Your task to perform on an android device: uninstall "Messenger Lite" Image 0: 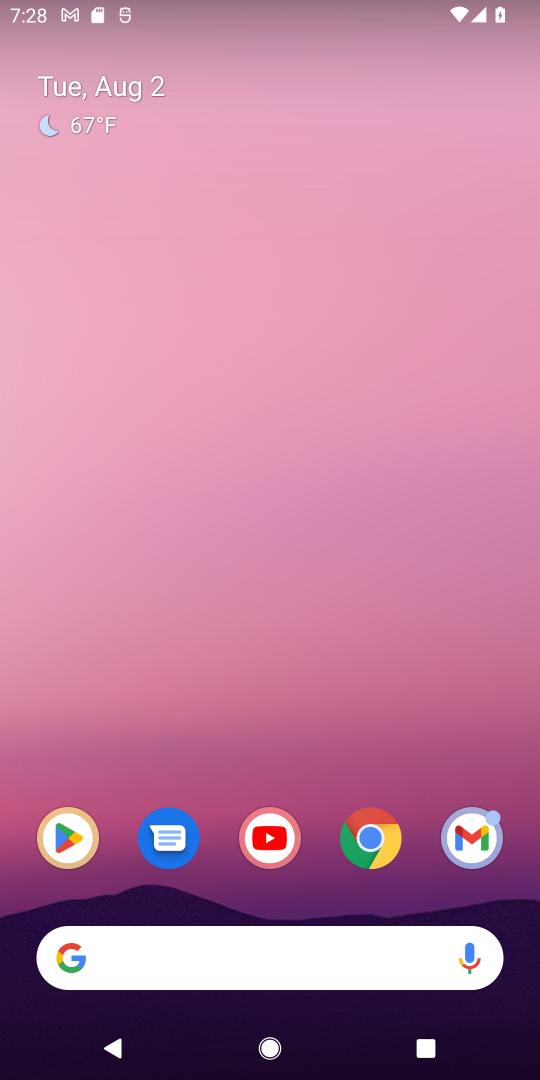
Step 0: click (49, 845)
Your task to perform on an android device: uninstall "Messenger Lite" Image 1: 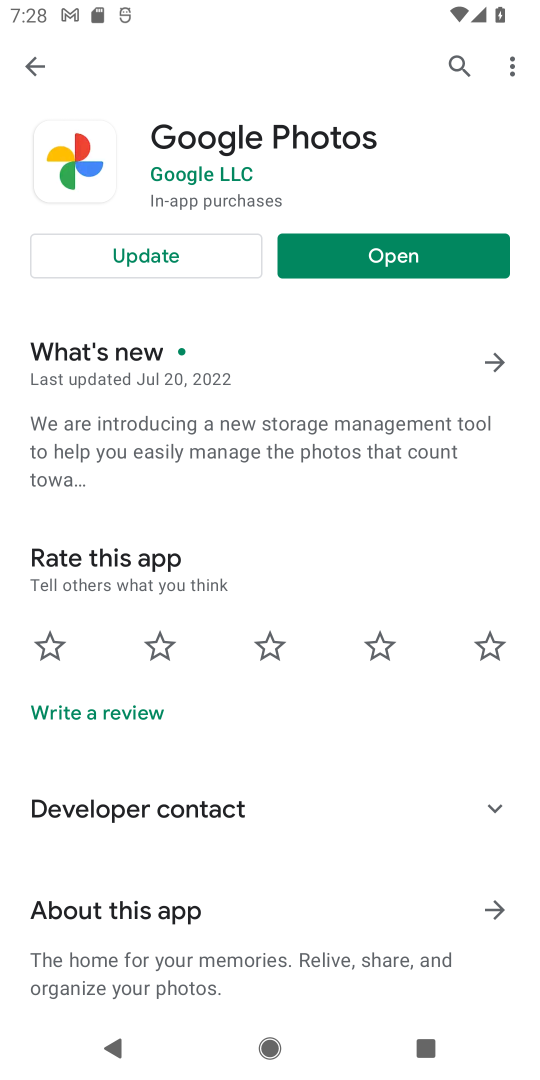
Step 1: click (448, 52)
Your task to perform on an android device: uninstall "Messenger Lite" Image 2: 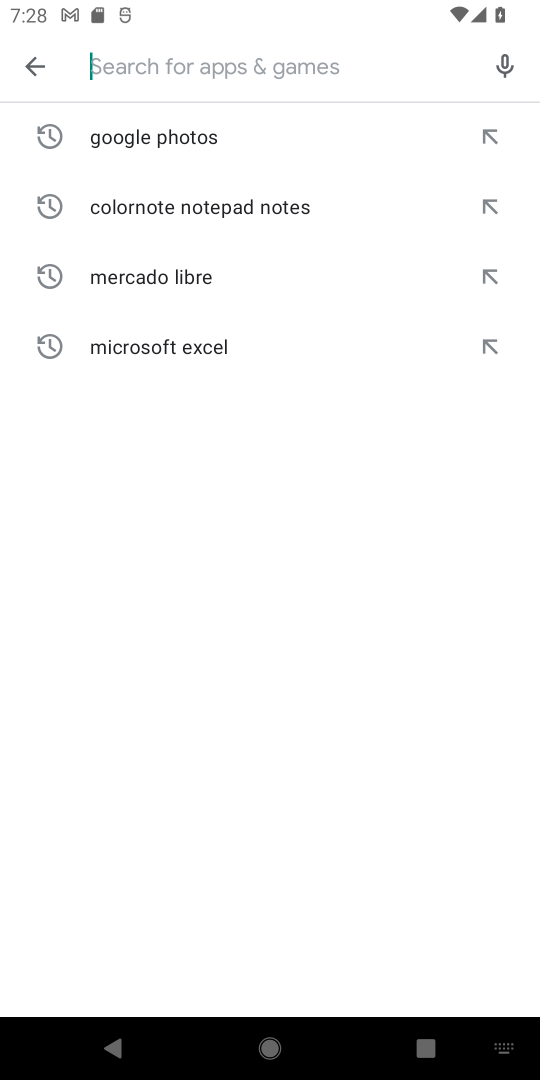
Step 2: type "messenger lite"
Your task to perform on an android device: uninstall "Messenger Lite" Image 3: 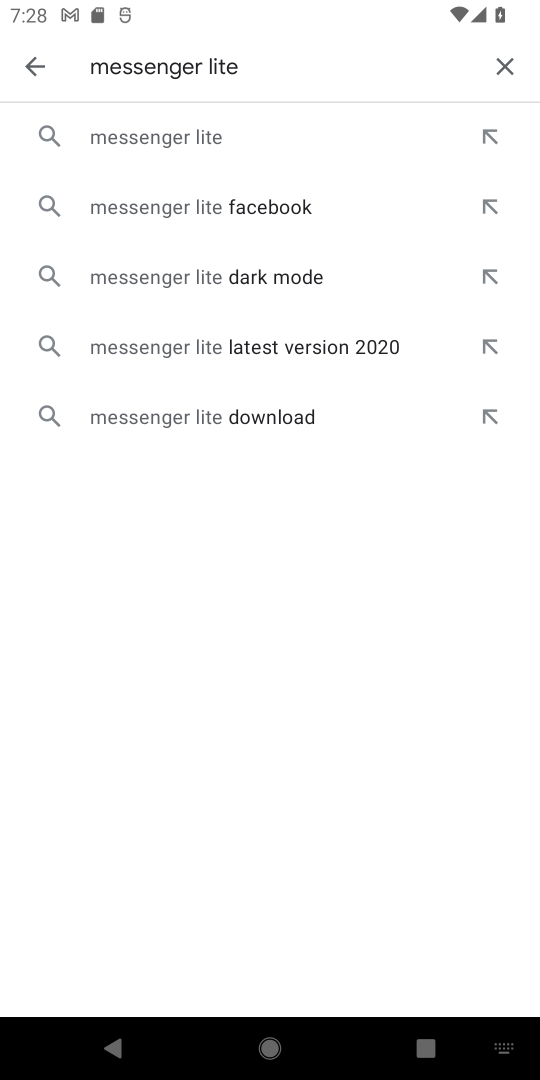
Step 3: click (125, 123)
Your task to perform on an android device: uninstall "Messenger Lite" Image 4: 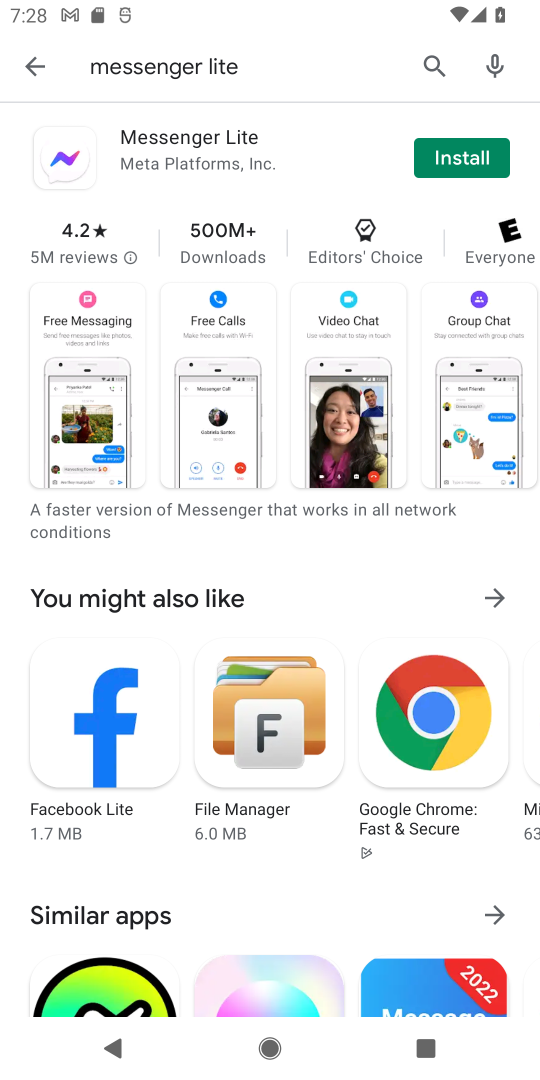
Step 4: task complete